Your task to perform on an android device: Check the news Image 0: 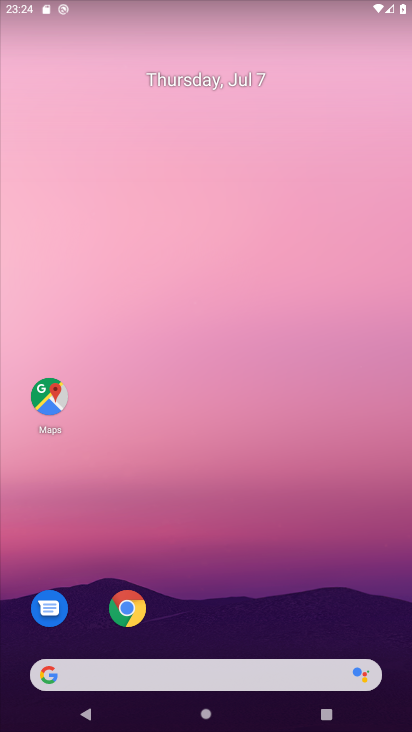
Step 0: drag from (197, 595) to (199, 262)
Your task to perform on an android device: Check the news Image 1: 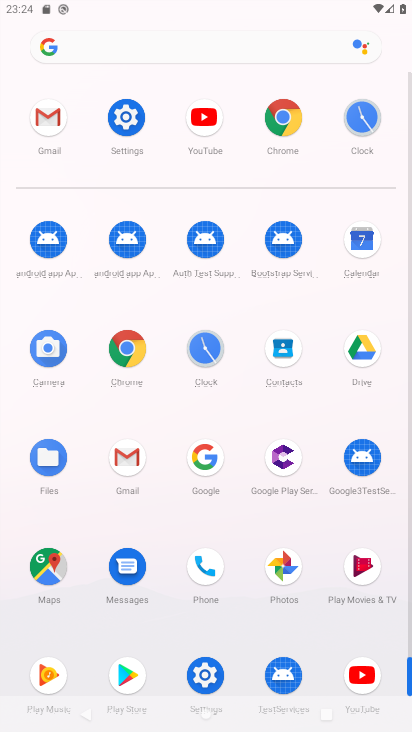
Step 1: click (51, 116)
Your task to perform on an android device: Check the news Image 2: 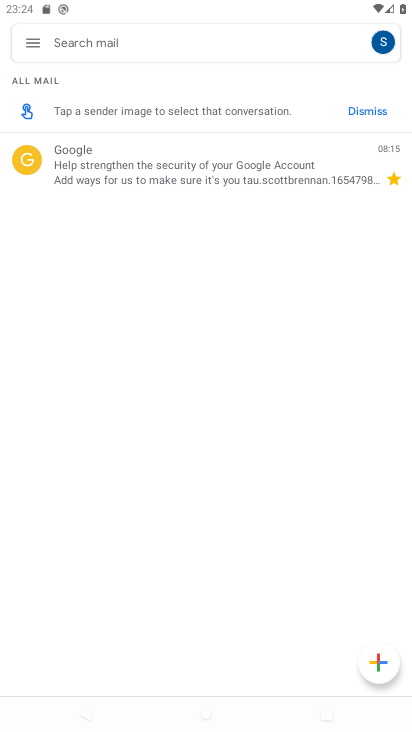
Step 2: press home button
Your task to perform on an android device: Check the news Image 3: 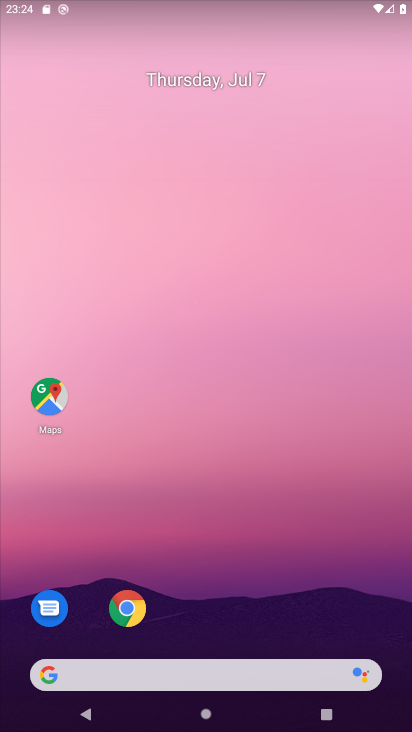
Step 3: drag from (246, 595) to (230, 184)
Your task to perform on an android device: Check the news Image 4: 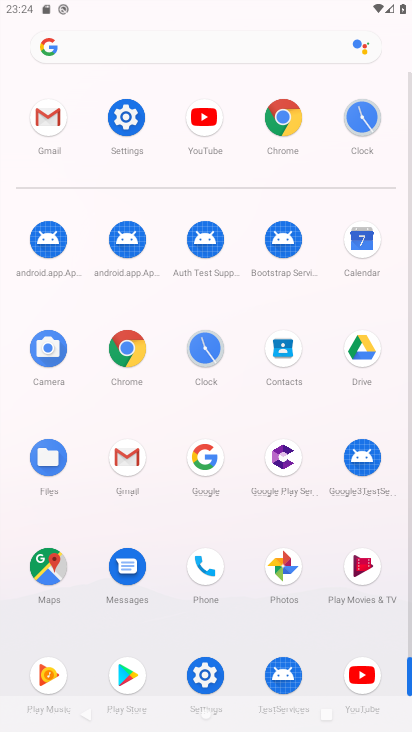
Step 4: click (279, 112)
Your task to perform on an android device: Check the news Image 5: 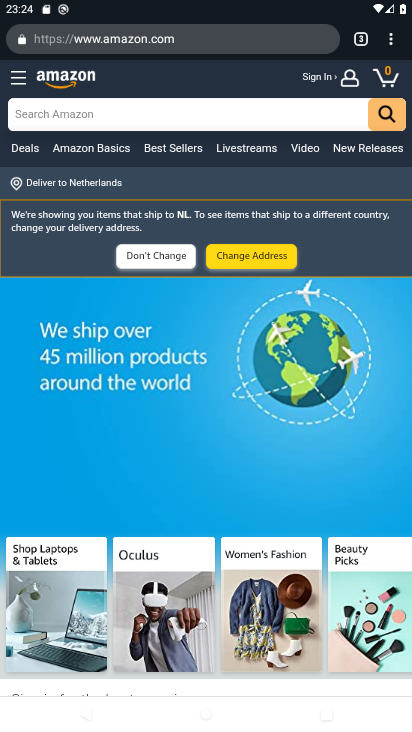
Step 5: click (393, 29)
Your task to perform on an android device: Check the news Image 6: 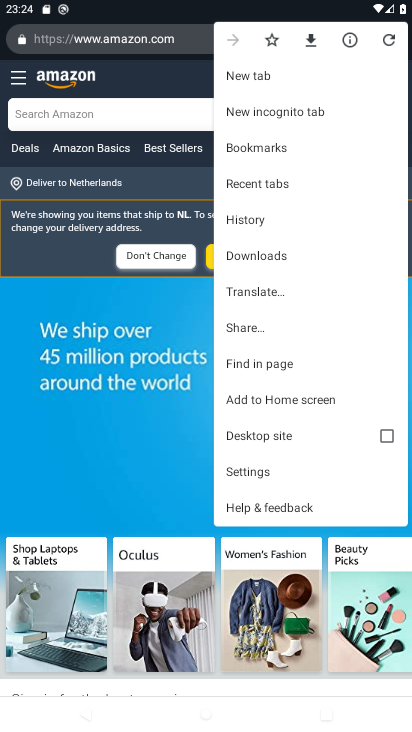
Step 6: click (259, 76)
Your task to perform on an android device: Check the news Image 7: 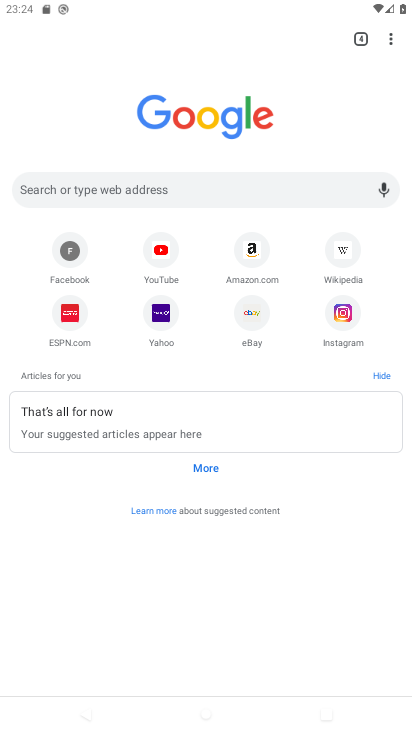
Step 7: click (121, 175)
Your task to perform on an android device: Check the news Image 8: 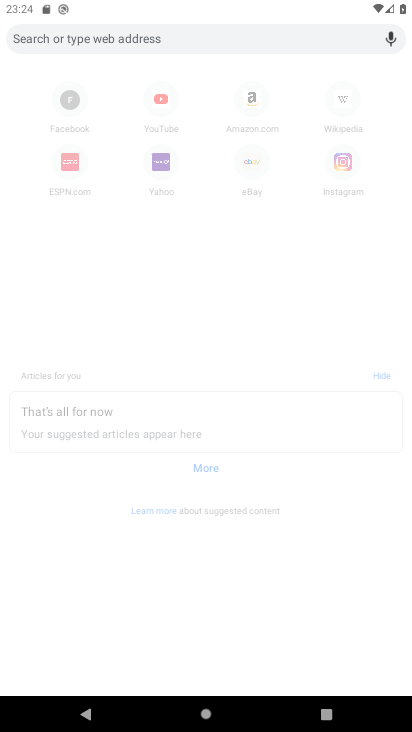
Step 8: type "Check the news "
Your task to perform on an android device: Check the news Image 9: 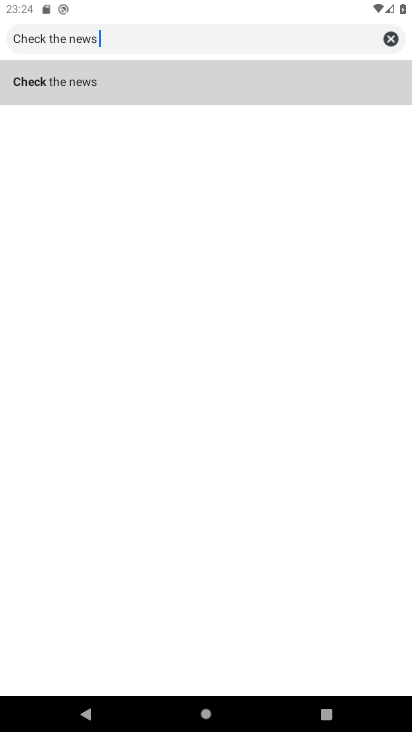
Step 9: click (169, 83)
Your task to perform on an android device: Check the news Image 10: 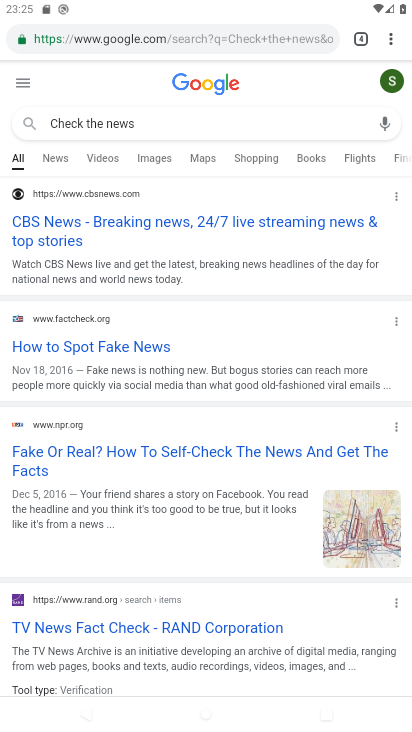
Step 10: task complete